Your task to perform on an android device: Go to eBay Image 0: 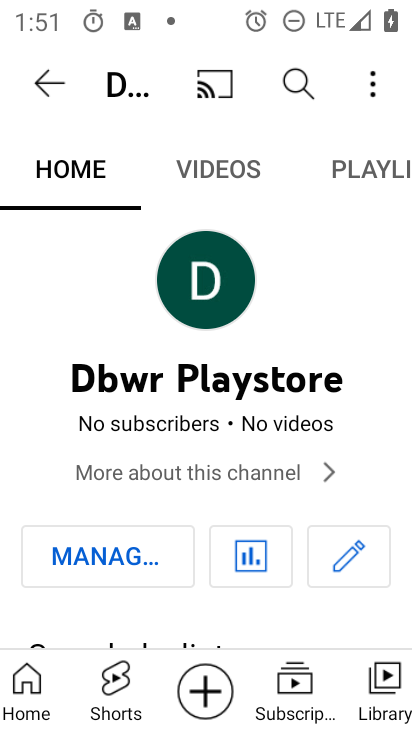
Step 0: press home button
Your task to perform on an android device: Go to eBay Image 1: 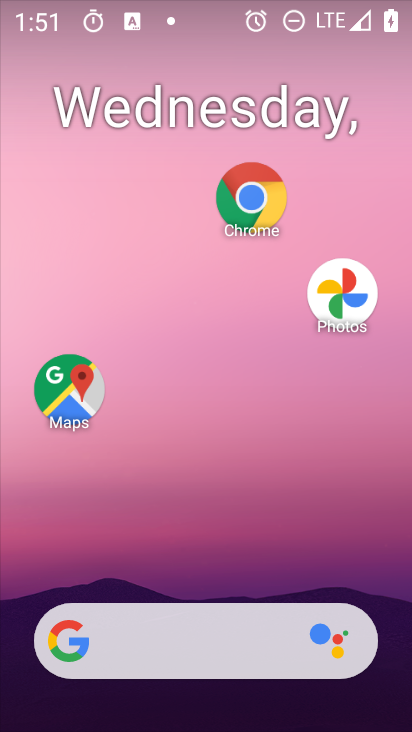
Step 1: drag from (243, 679) to (313, 291)
Your task to perform on an android device: Go to eBay Image 2: 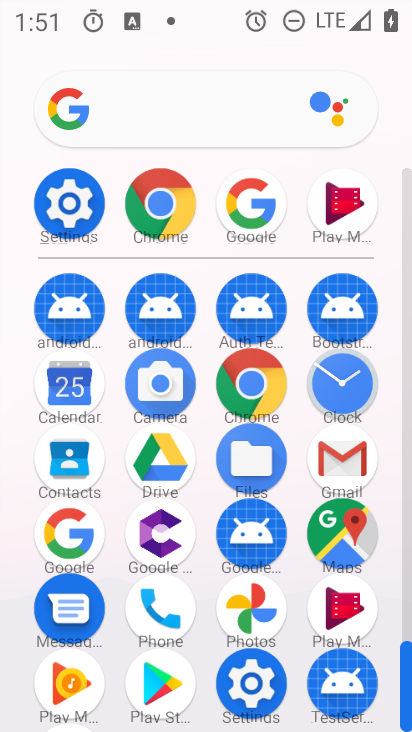
Step 2: click (166, 218)
Your task to perform on an android device: Go to eBay Image 3: 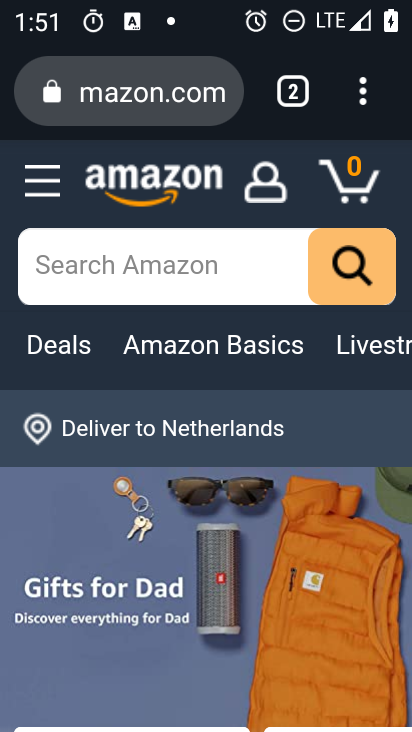
Step 3: click (198, 96)
Your task to perform on an android device: Go to eBay Image 4: 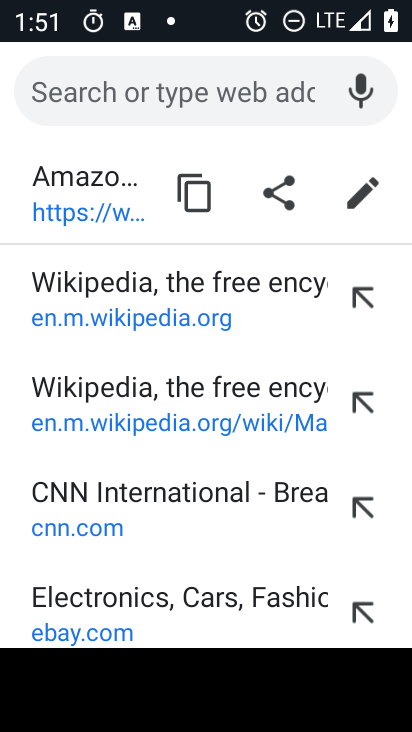
Step 4: click (129, 627)
Your task to perform on an android device: Go to eBay Image 5: 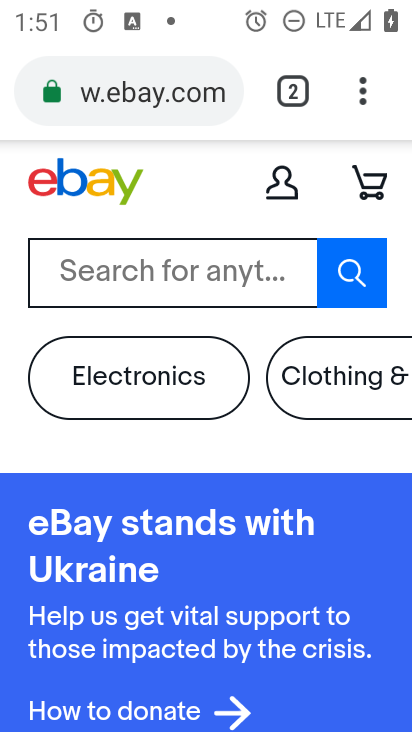
Step 5: task complete